Your task to perform on an android device: star an email in the gmail app Image 0: 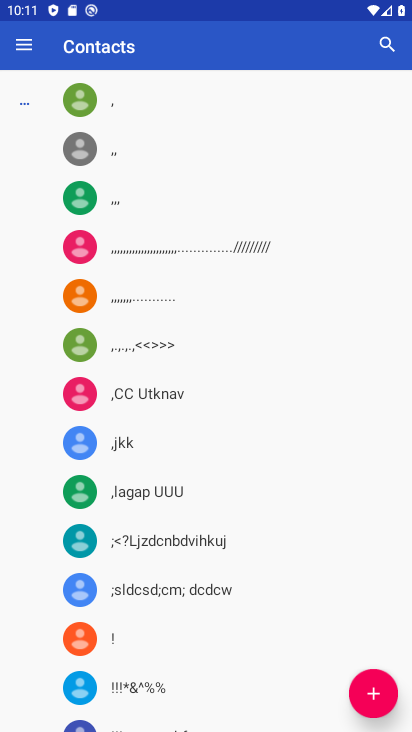
Step 0: press home button
Your task to perform on an android device: star an email in the gmail app Image 1: 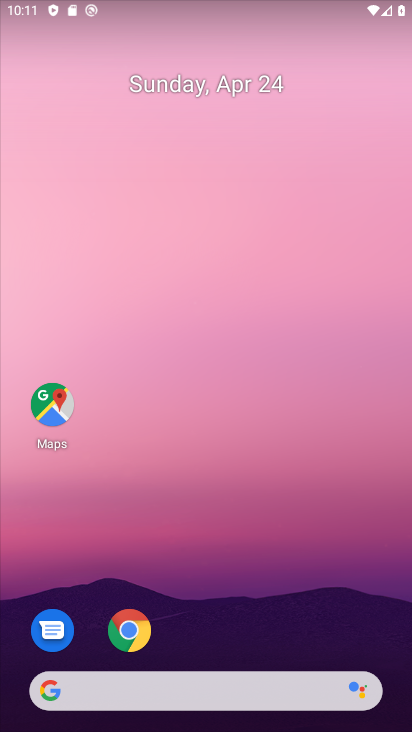
Step 1: drag from (189, 503) to (192, 138)
Your task to perform on an android device: star an email in the gmail app Image 2: 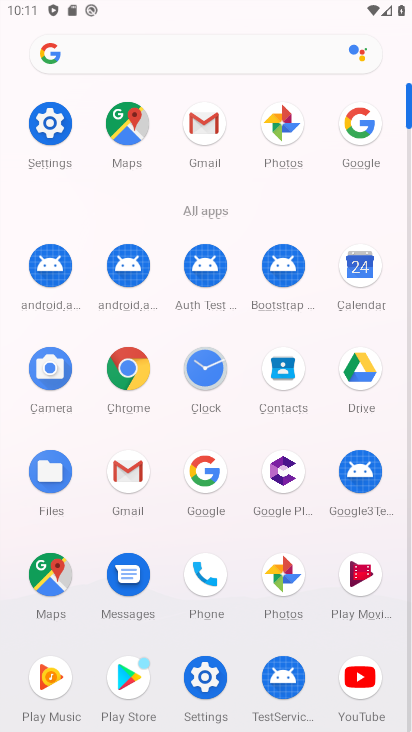
Step 2: click (197, 128)
Your task to perform on an android device: star an email in the gmail app Image 3: 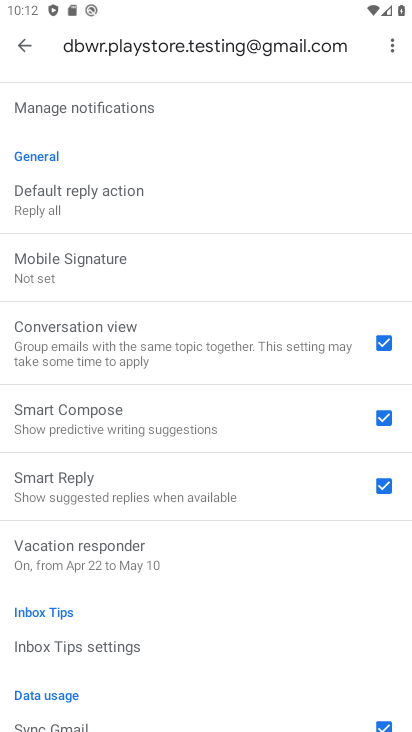
Step 3: click (21, 53)
Your task to perform on an android device: star an email in the gmail app Image 4: 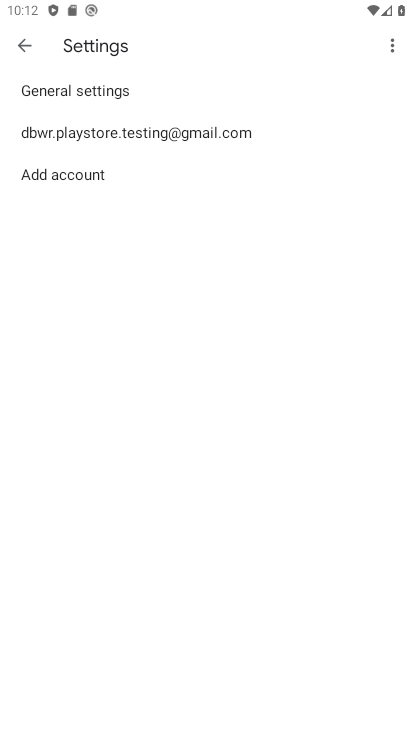
Step 4: click (21, 53)
Your task to perform on an android device: star an email in the gmail app Image 5: 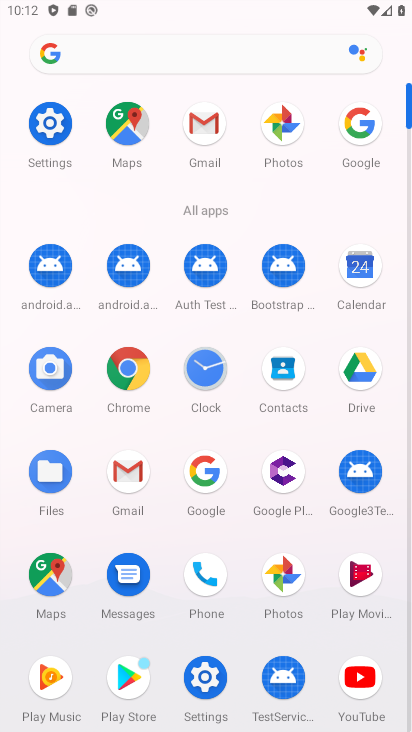
Step 5: click (196, 111)
Your task to perform on an android device: star an email in the gmail app Image 6: 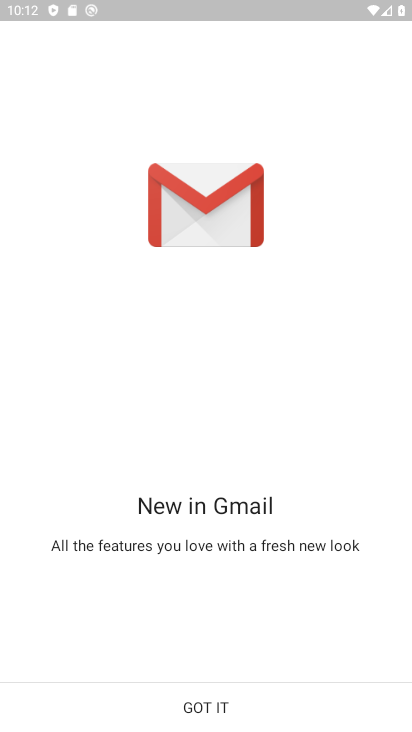
Step 6: click (198, 700)
Your task to perform on an android device: star an email in the gmail app Image 7: 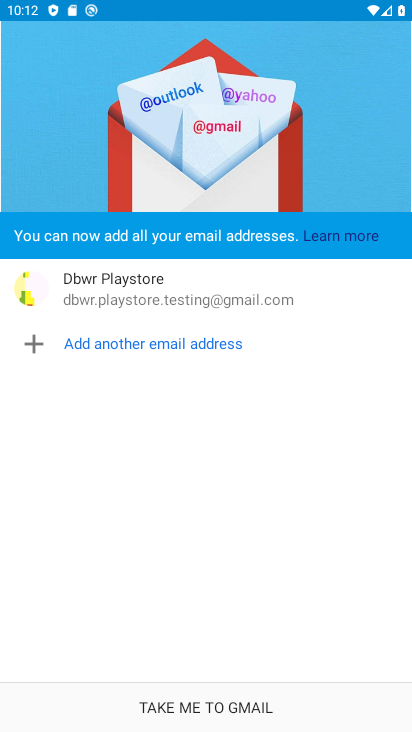
Step 7: click (208, 699)
Your task to perform on an android device: star an email in the gmail app Image 8: 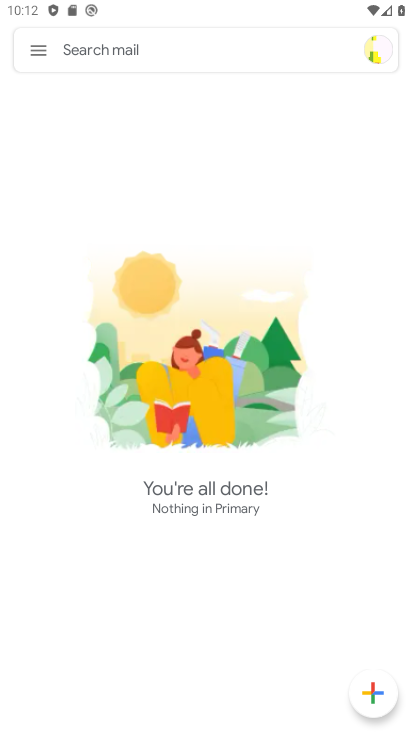
Step 8: click (43, 47)
Your task to perform on an android device: star an email in the gmail app Image 9: 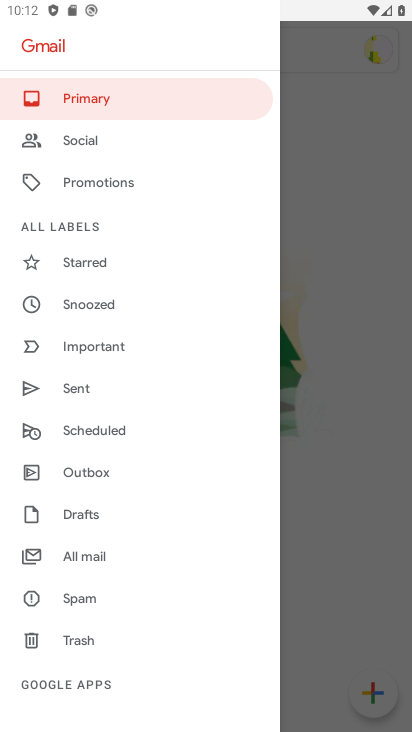
Step 9: click (106, 555)
Your task to perform on an android device: star an email in the gmail app Image 10: 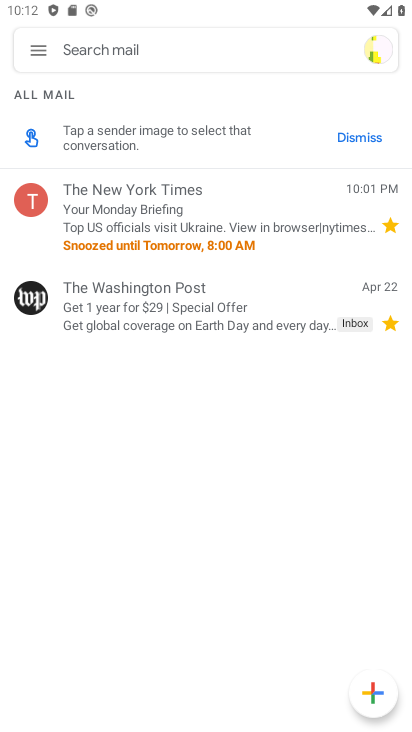
Step 10: click (146, 284)
Your task to perform on an android device: star an email in the gmail app Image 11: 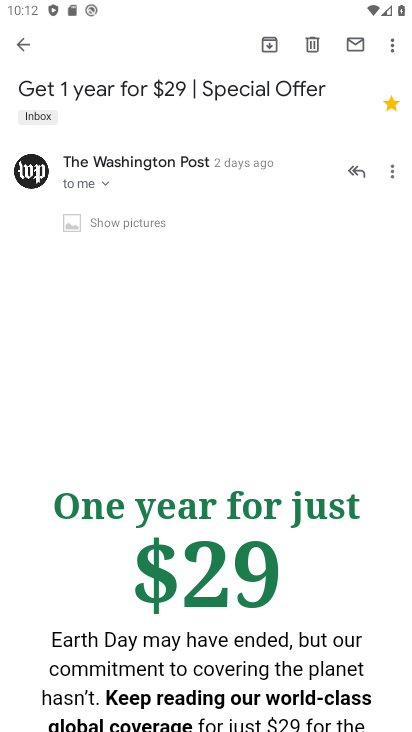
Step 11: click (388, 46)
Your task to perform on an android device: star an email in the gmail app Image 12: 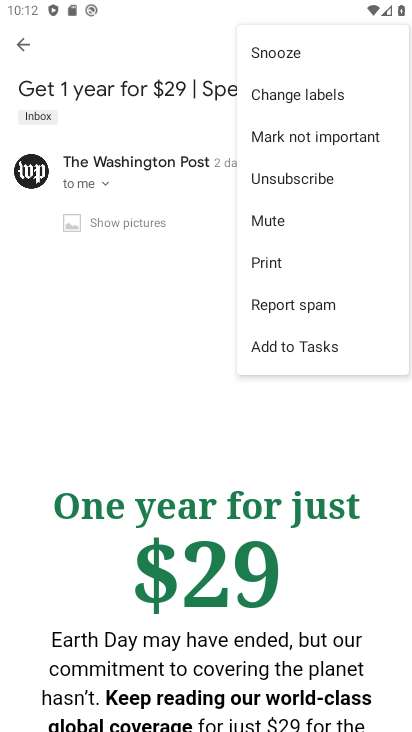
Step 12: click (188, 284)
Your task to perform on an android device: star an email in the gmail app Image 13: 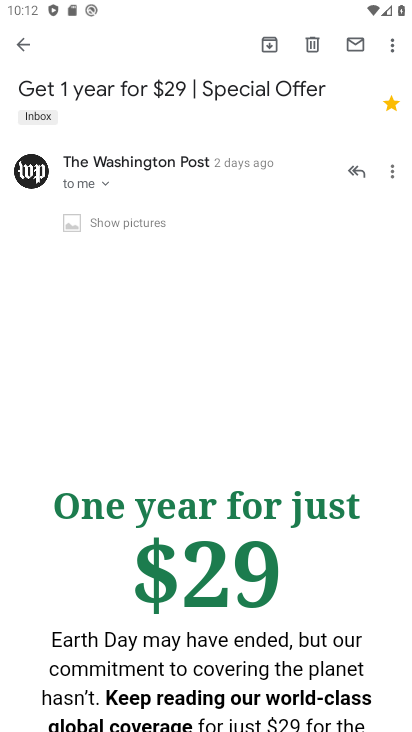
Step 13: task complete